Your task to perform on an android device: Open Wikipedia Image 0: 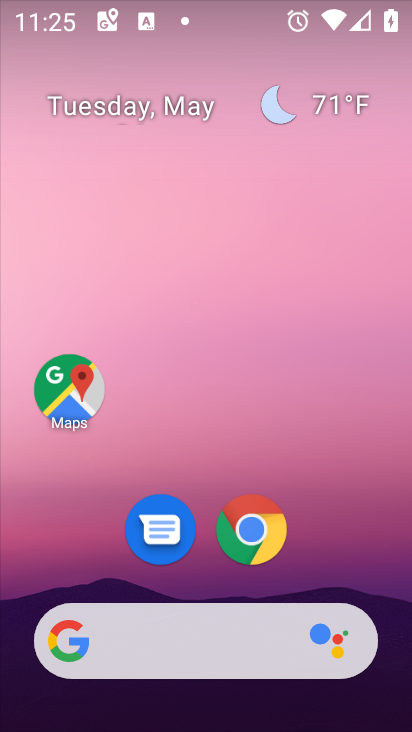
Step 0: drag from (201, 691) to (275, 152)
Your task to perform on an android device: Open Wikipedia Image 1: 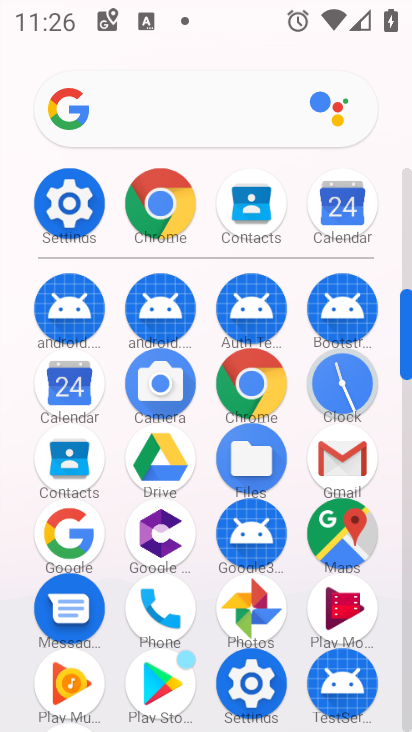
Step 1: click (173, 197)
Your task to perform on an android device: Open Wikipedia Image 2: 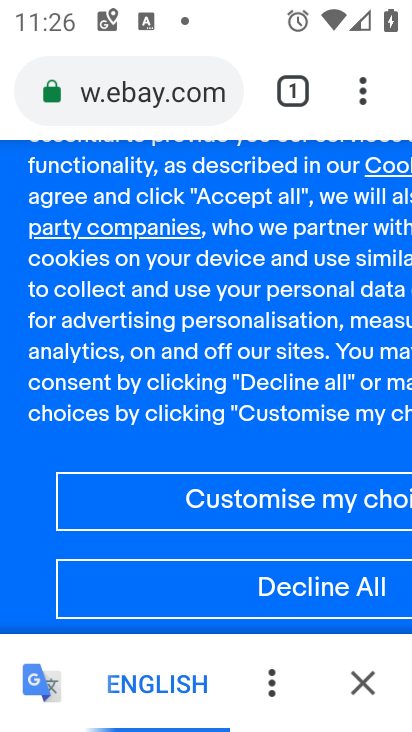
Step 2: click (207, 86)
Your task to perform on an android device: Open Wikipedia Image 3: 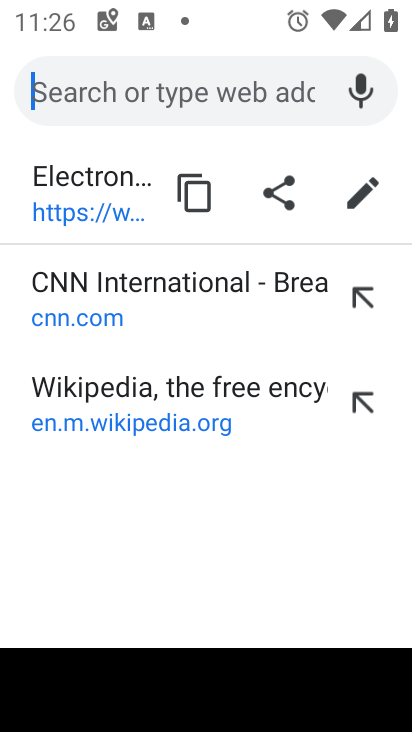
Step 3: click (136, 407)
Your task to perform on an android device: Open Wikipedia Image 4: 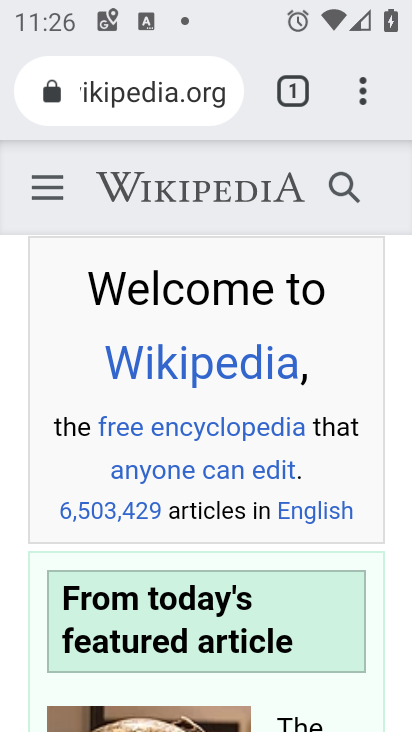
Step 4: task complete